Your task to perform on an android device: Show me popular videos on Youtube Image 0: 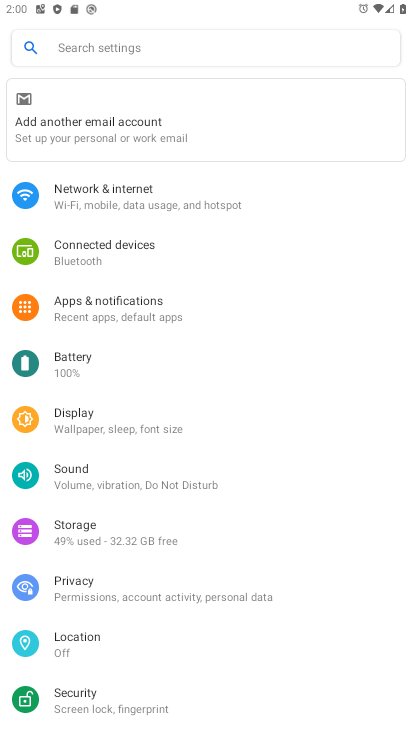
Step 0: press home button
Your task to perform on an android device: Show me popular videos on Youtube Image 1: 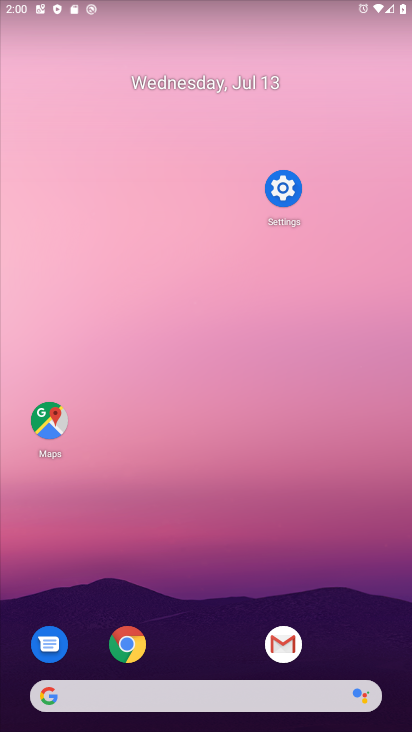
Step 1: drag from (219, 706) to (298, 257)
Your task to perform on an android device: Show me popular videos on Youtube Image 2: 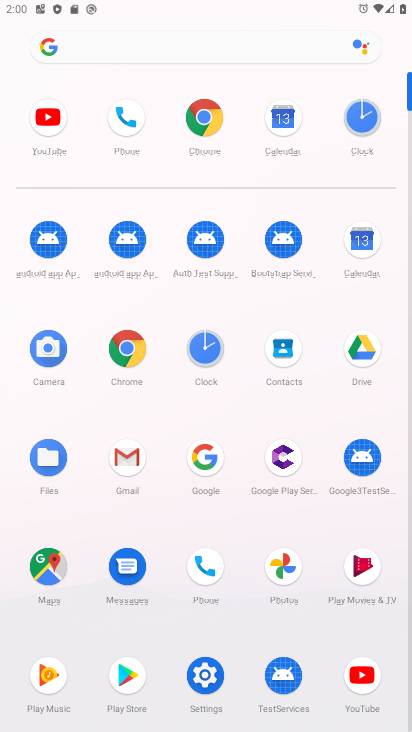
Step 2: click (355, 659)
Your task to perform on an android device: Show me popular videos on Youtube Image 3: 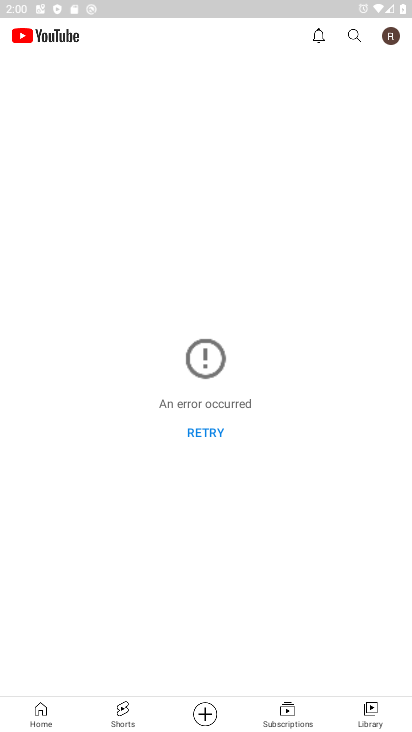
Step 3: click (351, 30)
Your task to perform on an android device: Show me popular videos on Youtube Image 4: 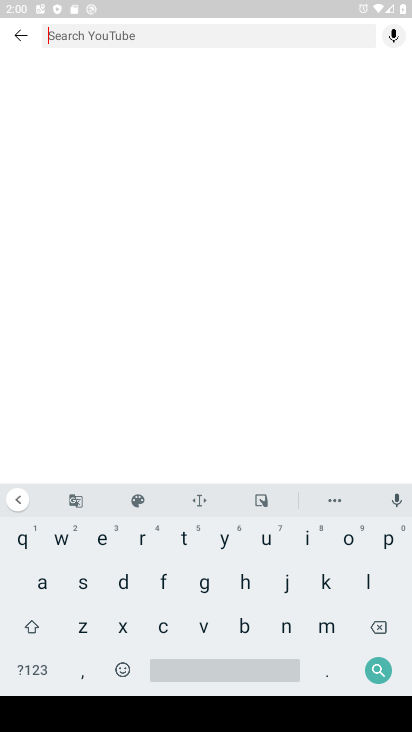
Step 4: click (389, 540)
Your task to perform on an android device: Show me popular videos on Youtube Image 5: 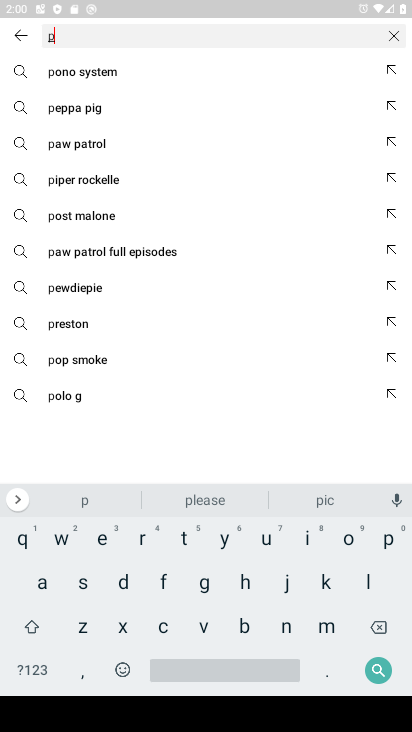
Step 5: click (346, 535)
Your task to perform on an android device: Show me popular videos on Youtube Image 6: 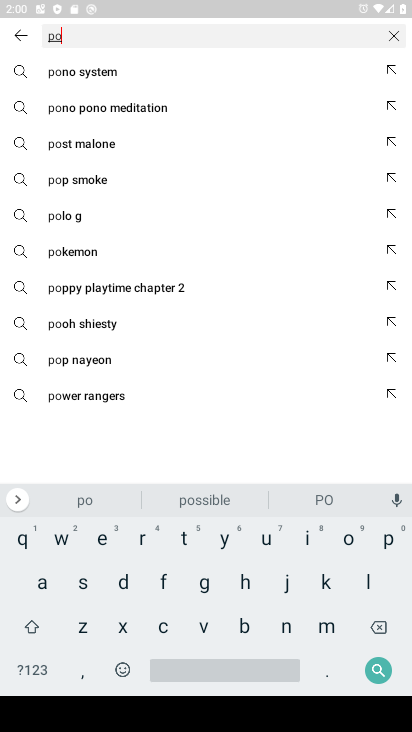
Step 6: click (386, 544)
Your task to perform on an android device: Show me popular videos on Youtube Image 7: 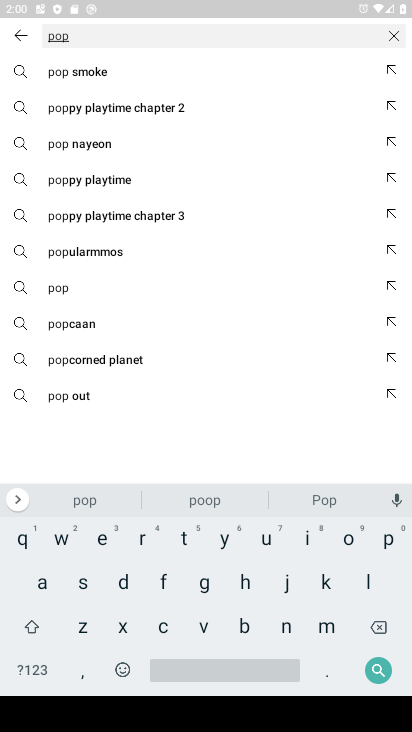
Step 7: click (266, 541)
Your task to perform on an android device: Show me popular videos on Youtube Image 8: 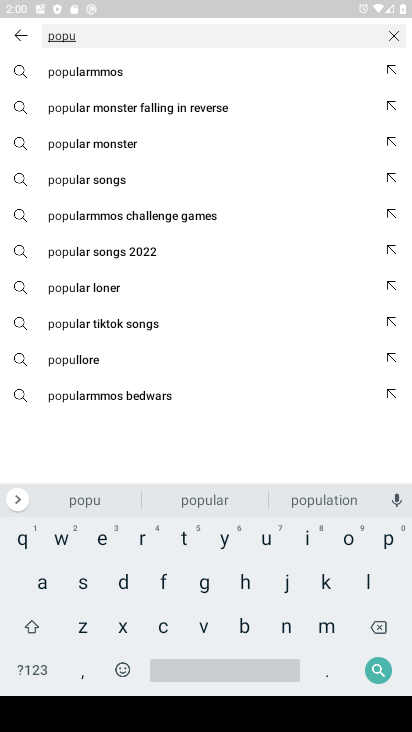
Step 8: click (216, 500)
Your task to perform on an android device: Show me popular videos on Youtube Image 9: 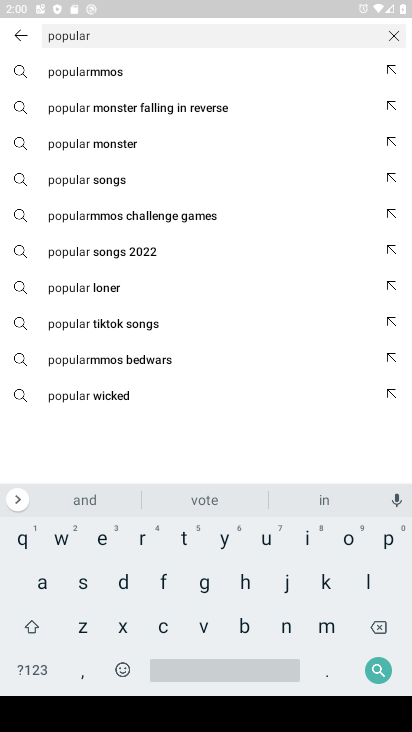
Step 9: click (200, 627)
Your task to perform on an android device: Show me popular videos on Youtube Image 10: 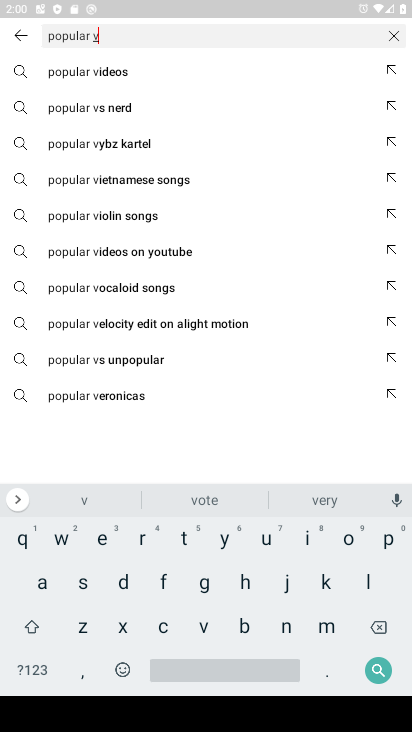
Step 10: click (138, 74)
Your task to perform on an android device: Show me popular videos on Youtube Image 11: 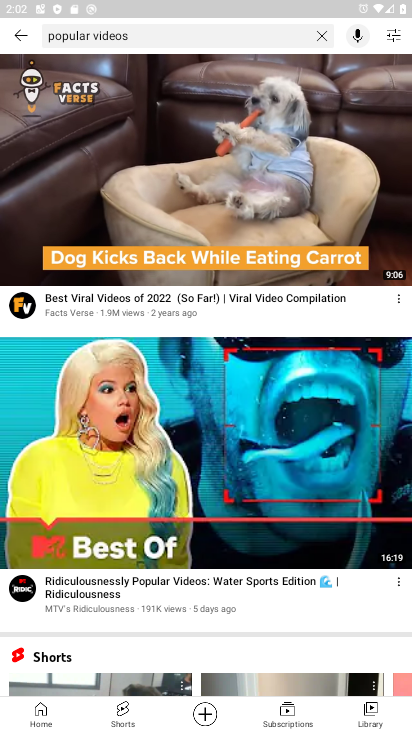
Step 11: task complete